Your task to perform on an android device: delete the emails in spam in the gmail app Image 0: 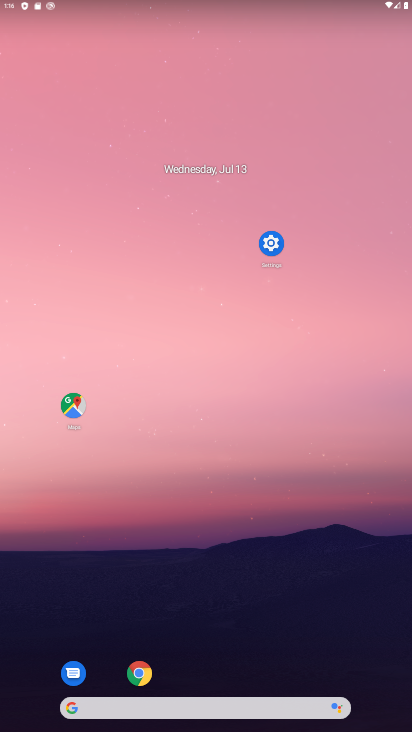
Step 0: drag from (191, 679) to (117, 128)
Your task to perform on an android device: delete the emails in spam in the gmail app Image 1: 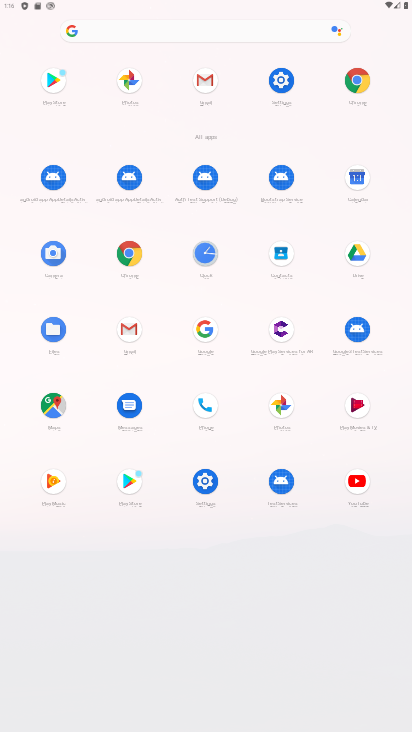
Step 1: click (205, 79)
Your task to perform on an android device: delete the emails in spam in the gmail app Image 2: 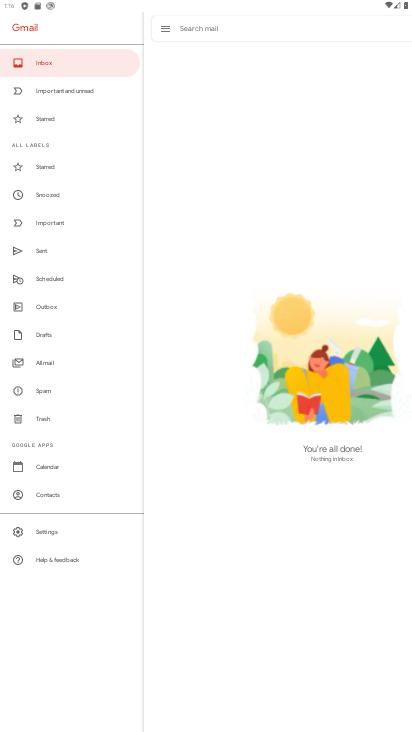
Step 2: click (59, 386)
Your task to perform on an android device: delete the emails in spam in the gmail app Image 3: 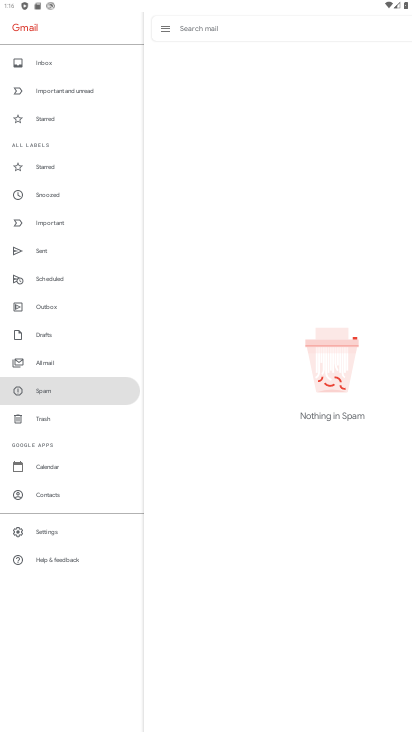
Step 3: task complete